Your task to perform on an android device: Turn on the flashlight Image 0: 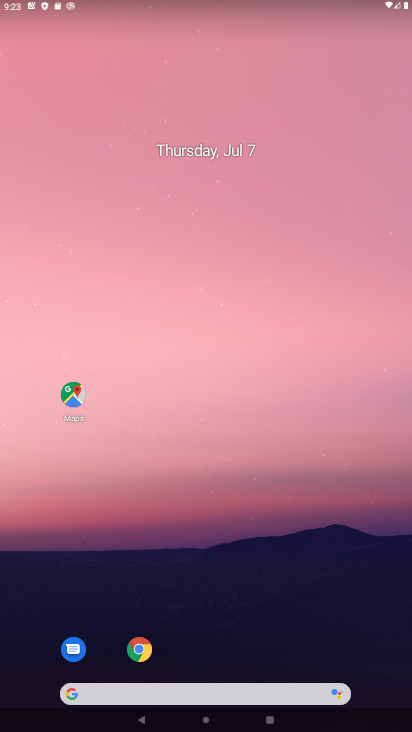
Step 0: drag from (233, 705) to (211, 92)
Your task to perform on an android device: Turn on the flashlight Image 1: 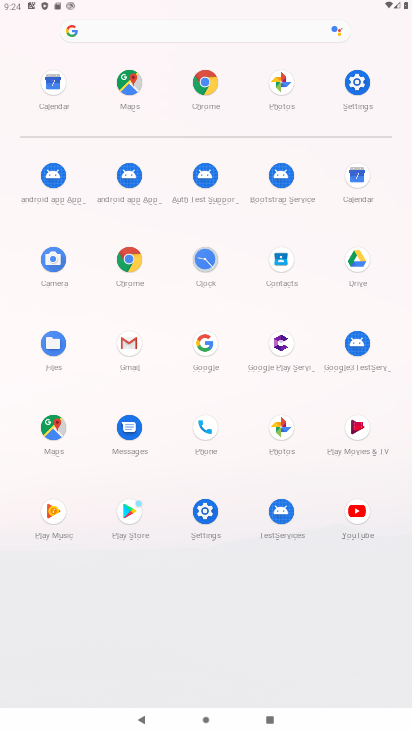
Step 1: click (364, 85)
Your task to perform on an android device: Turn on the flashlight Image 2: 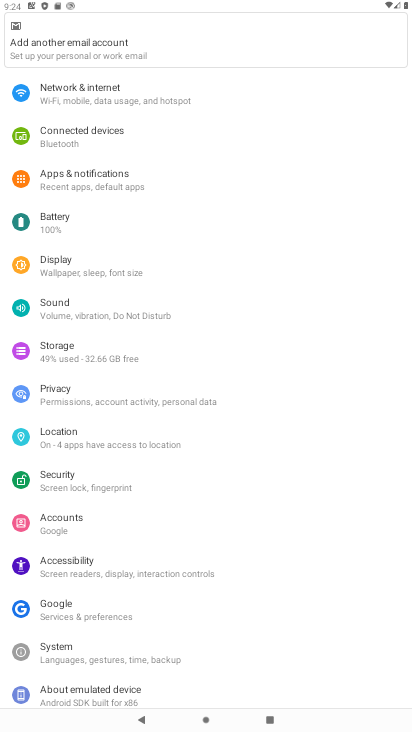
Step 2: task complete